Your task to perform on an android device: open app "Google Sheets" Image 0: 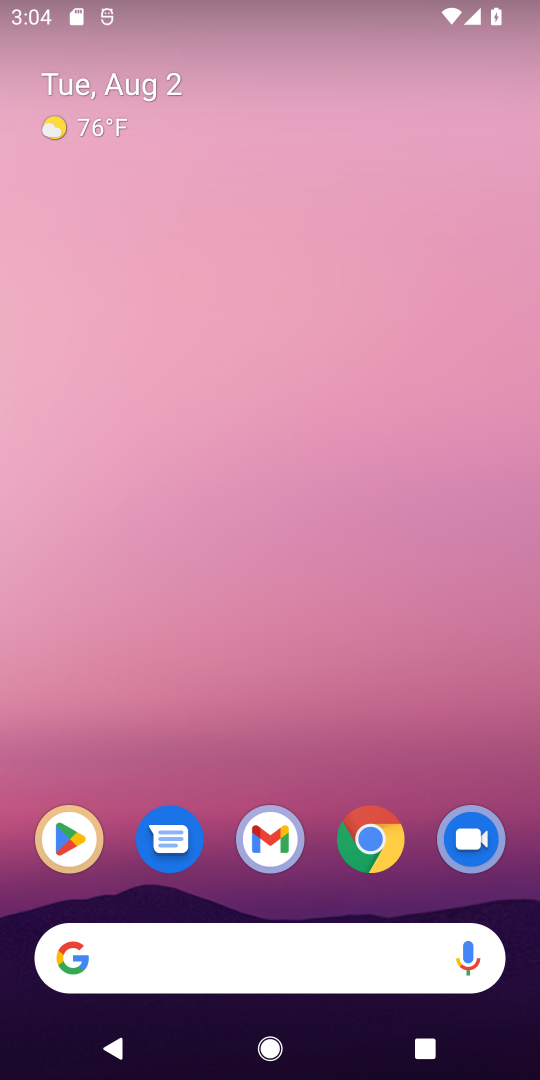
Step 0: click (78, 858)
Your task to perform on an android device: open app "Google Sheets" Image 1: 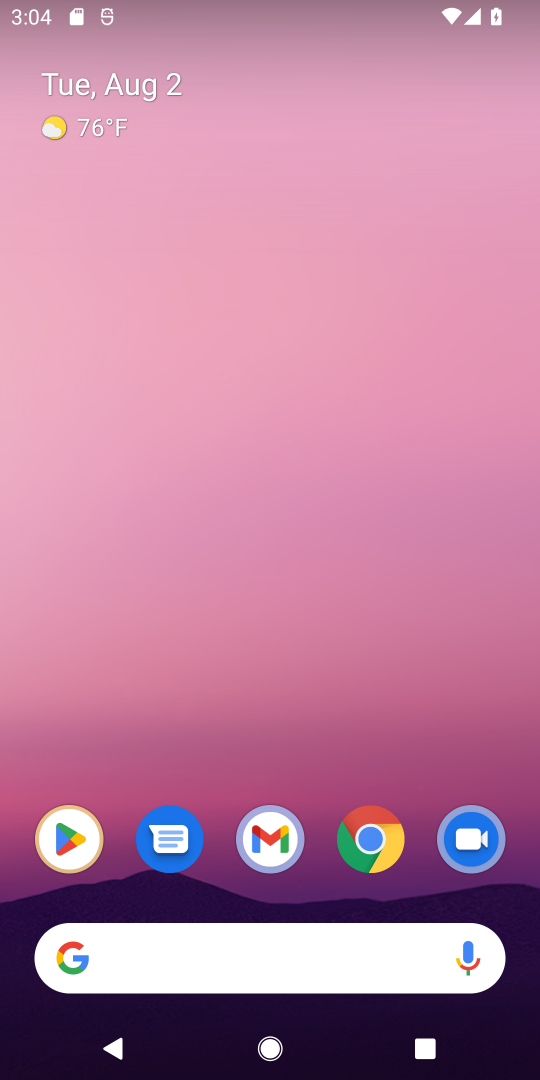
Step 1: click (78, 858)
Your task to perform on an android device: open app "Google Sheets" Image 2: 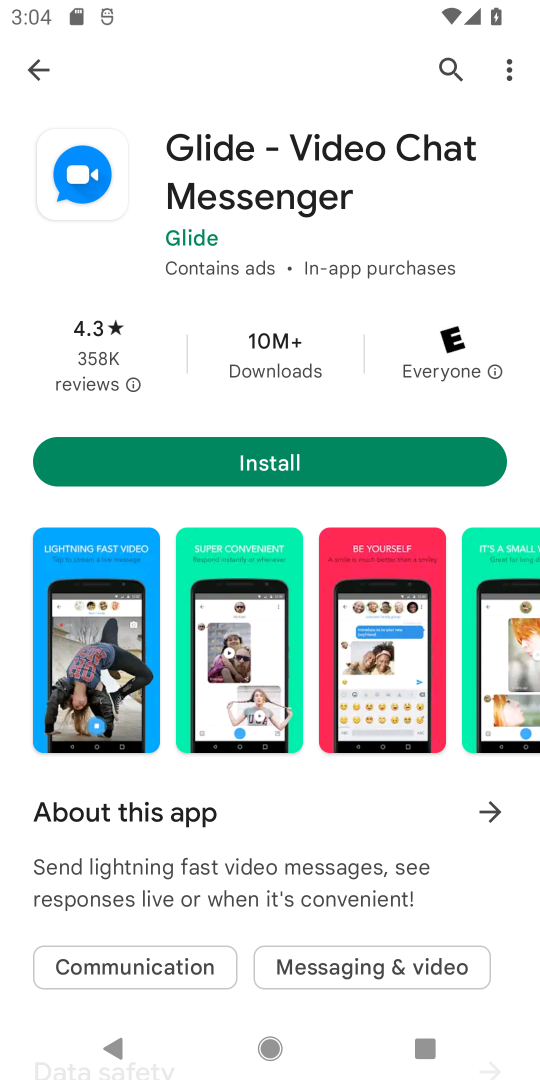
Step 2: click (447, 83)
Your task to perform on an android device: open app "Google Sheets" Image 3: 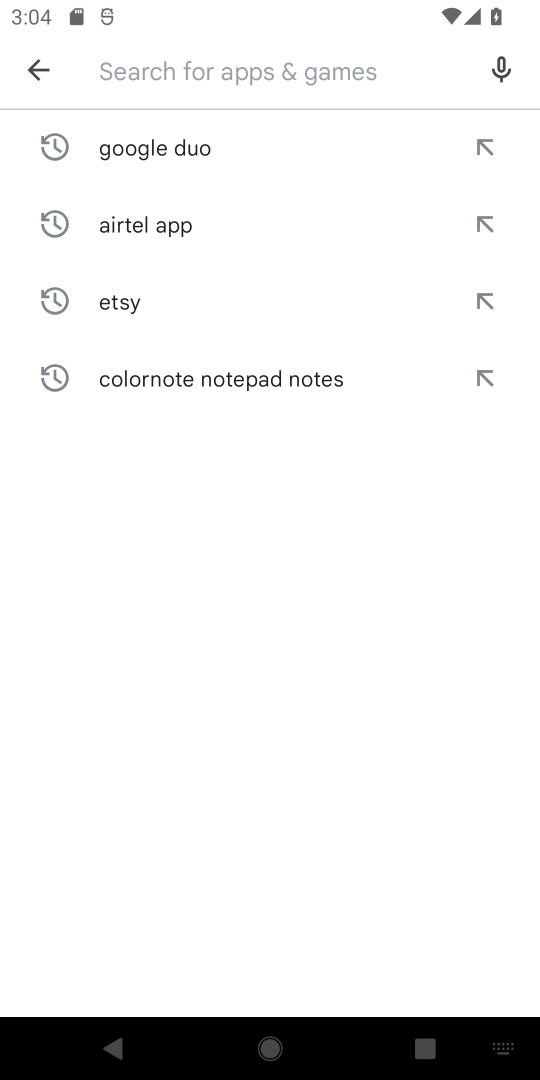
Step 3: type "google sheet"
Your task to perform on an android device: open app "Google Sheets" Image 4: 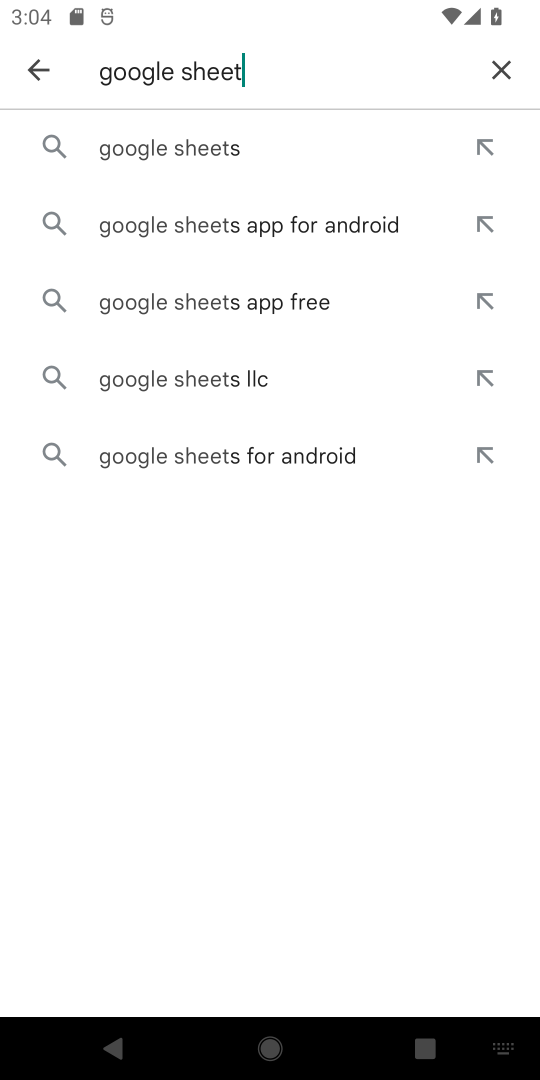
Step 4: click (227, 150)
Your task to perform on an android device: open app "Google Sheets" Image 5: 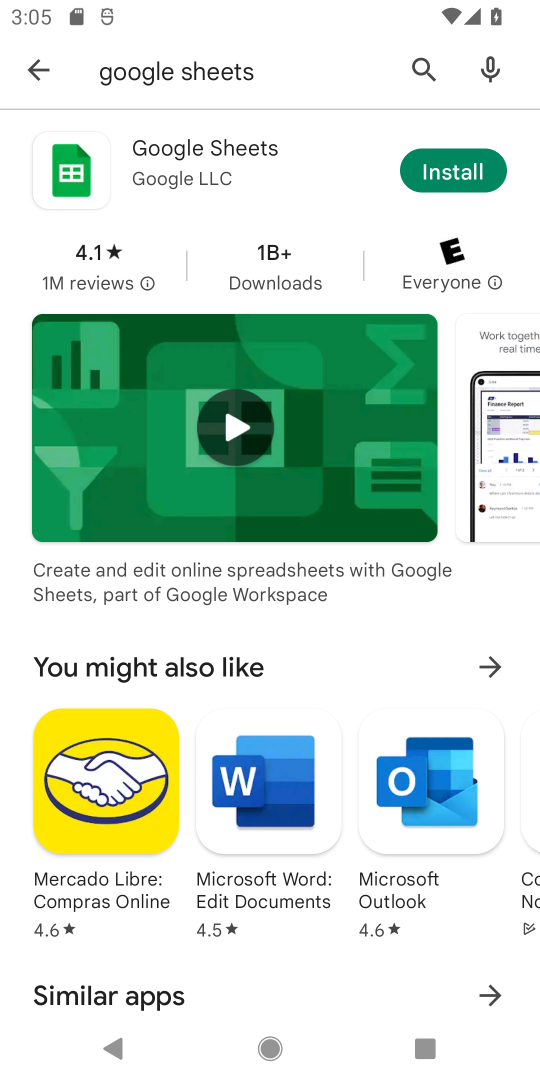
Step 5: click (450, 173)
Your task to perform on an android device: open app "Google Sheets" Image 6: 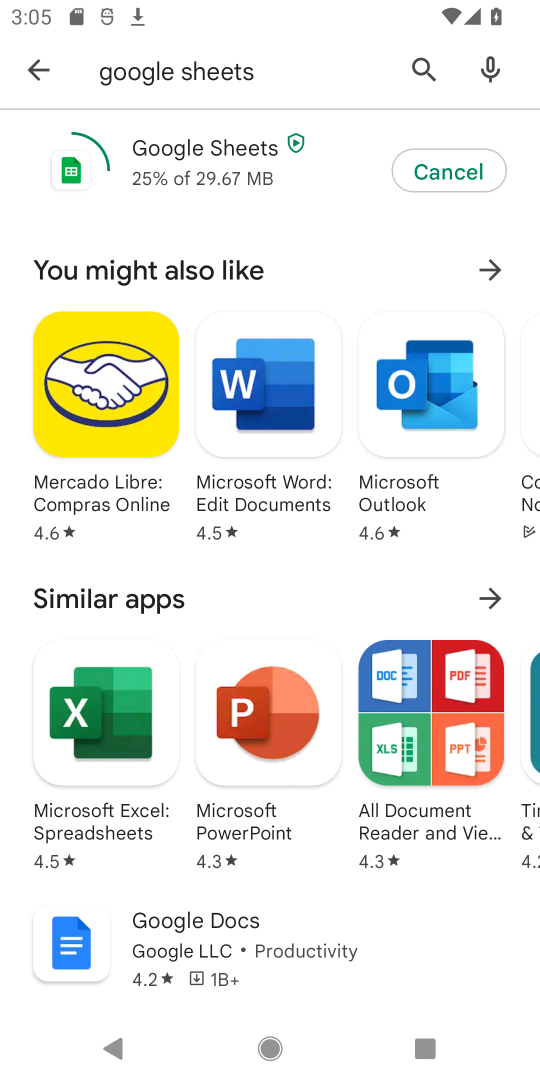
Step 6: task complete